Your task to perform on an android device: delete browsing data in the chrome app Image 0: 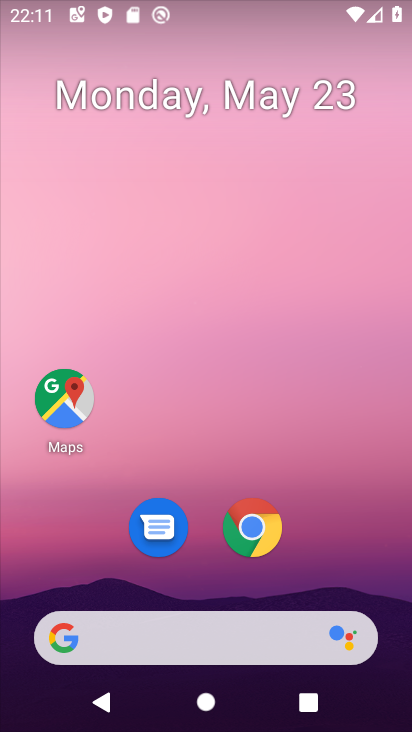
Step 0: click (255, 558)
Your task to perform on an android device: delete browsing data in the chrome app Image 1: 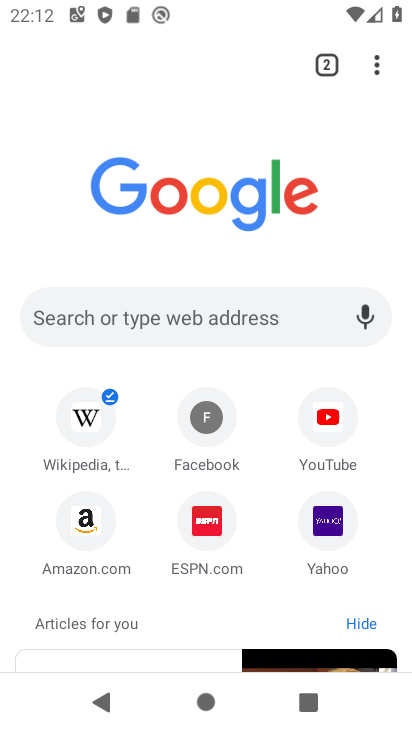
Step 1: drag from (372, 71) to (184, 363)
Your task to perform on an android device: delete browsing data in the chrome app Image 2: 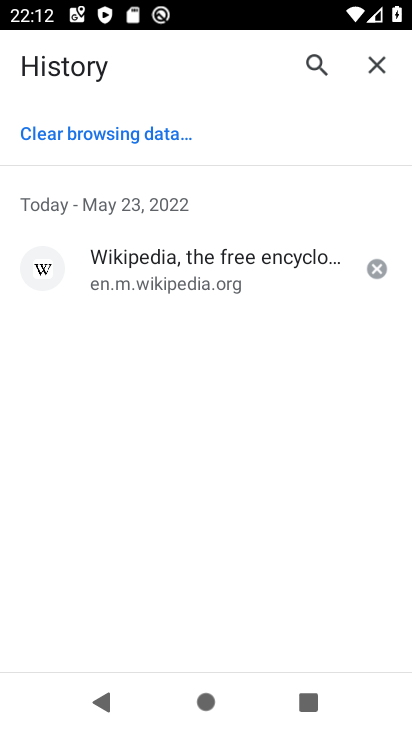
Step 2: click (128, 137)
Your task to perform on an android device: delete browsing data in the chrome app Image 3: 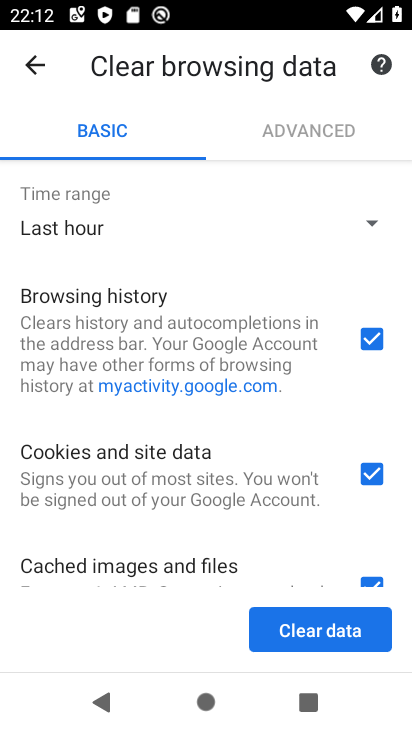
Step 3: click (300, 632)
Your task to perform on an android device: delete browsing data in the chrome app Image 4: 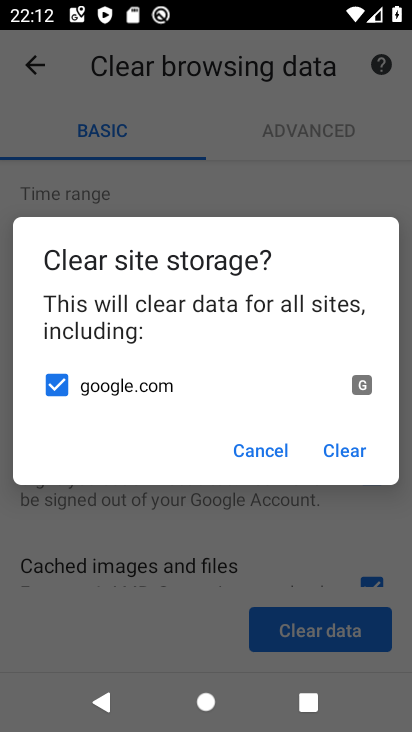
Step 4: click (356, 454)
Your task to perform on an android device: delete browsing data in the chrome app Image 5: 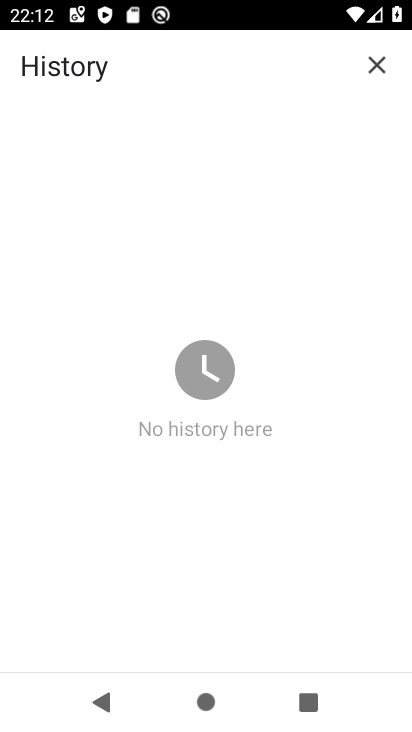
Step 5: task complete